Your task to perform on an android device: check data usage Image 0: 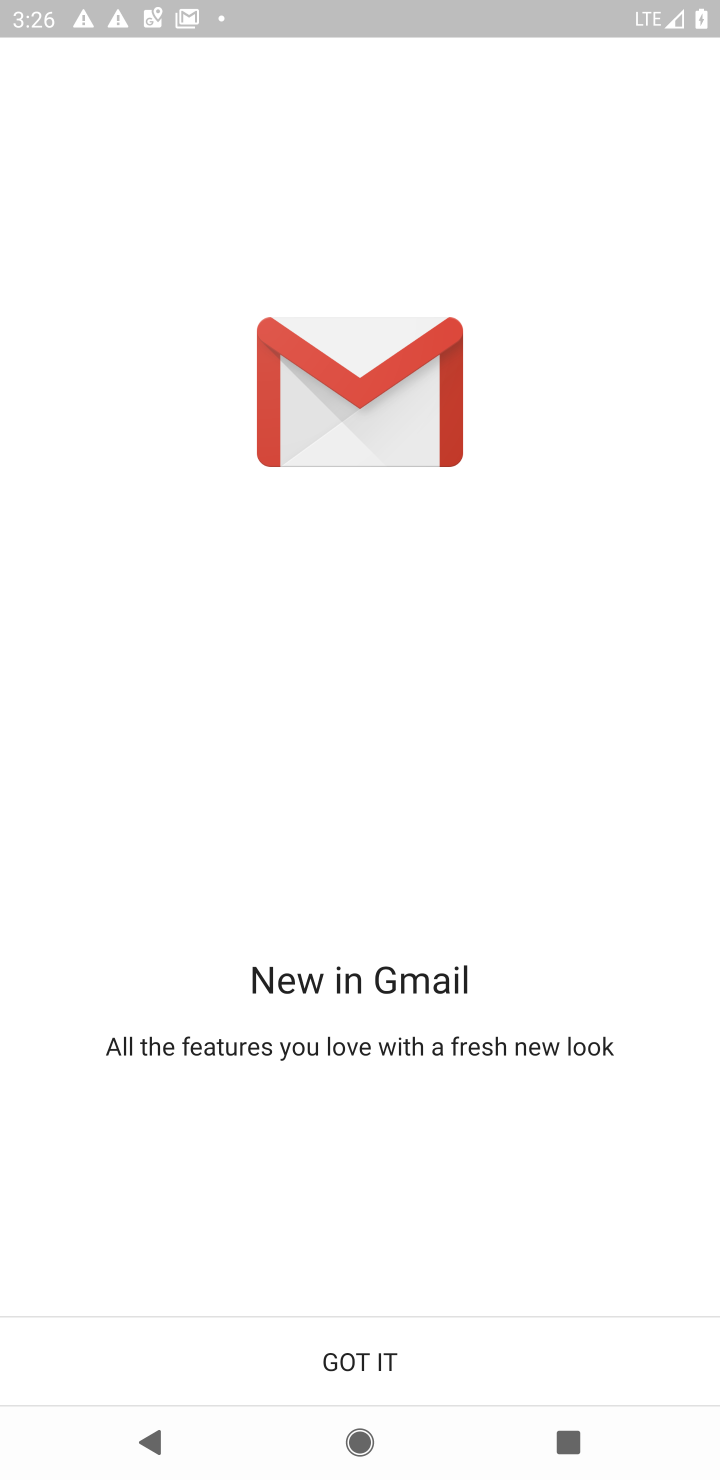
Step 0: press home button
Your task to perform on an android device: check data usage Image 1: 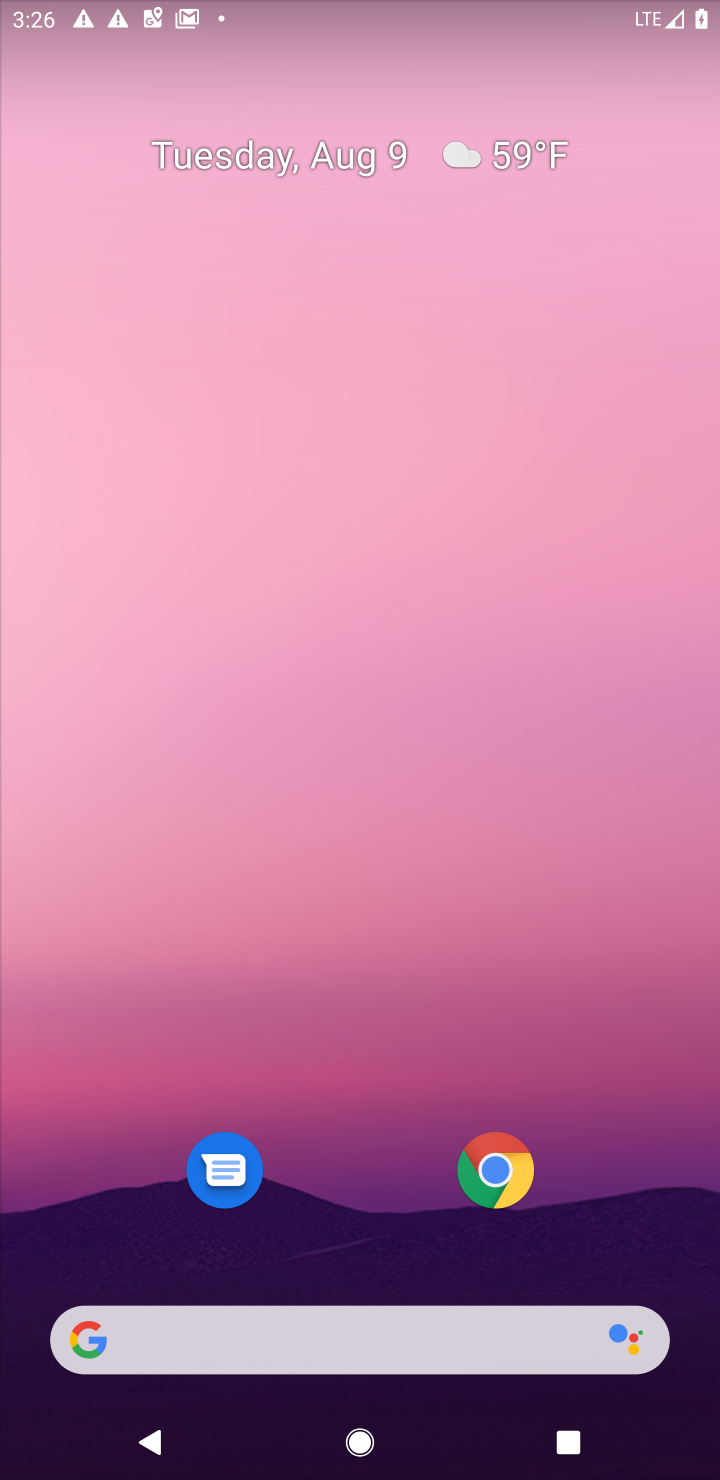
Step 1: drag from (407, 1136) to (391, 3)
Your task to perform on an android device: check data usage Image 2: 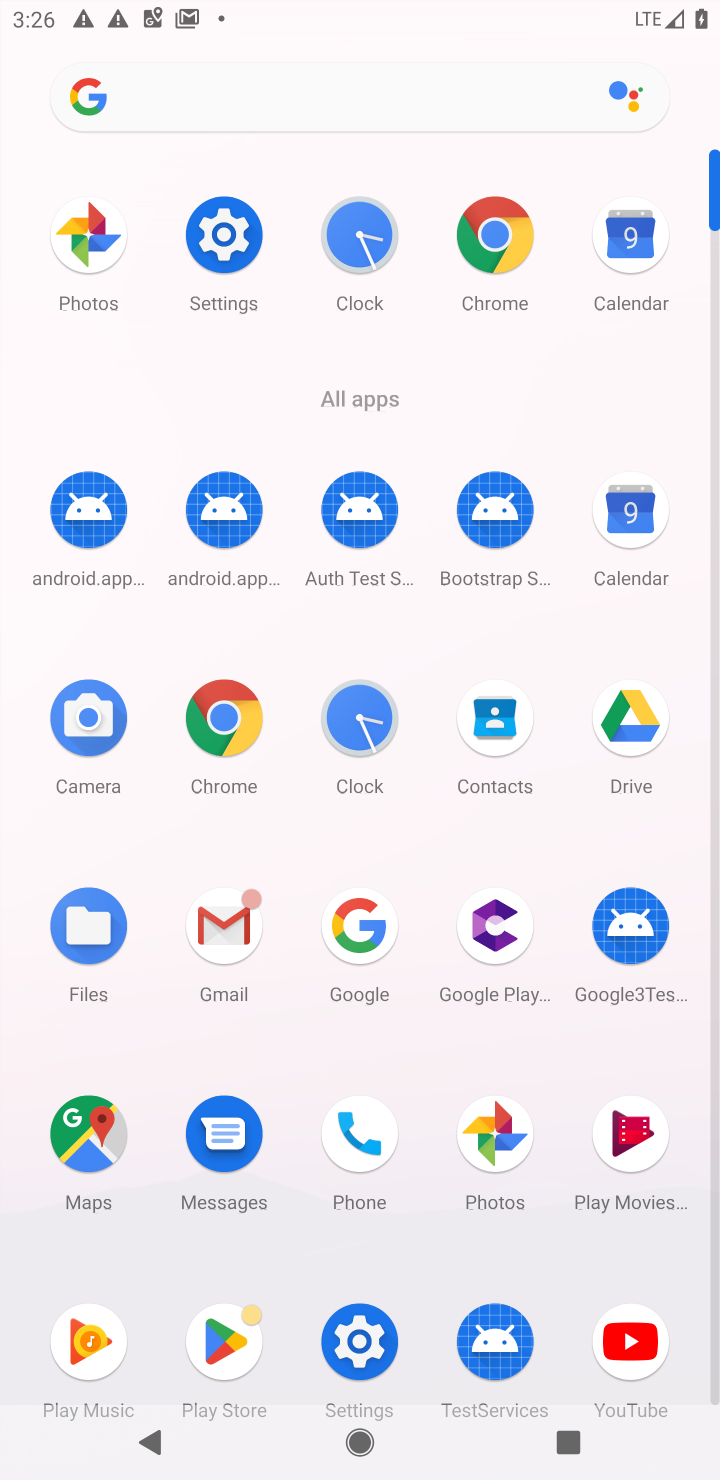
Step 2: click (218, 250)
Your task to perform on an android device: check data usage Image 3: 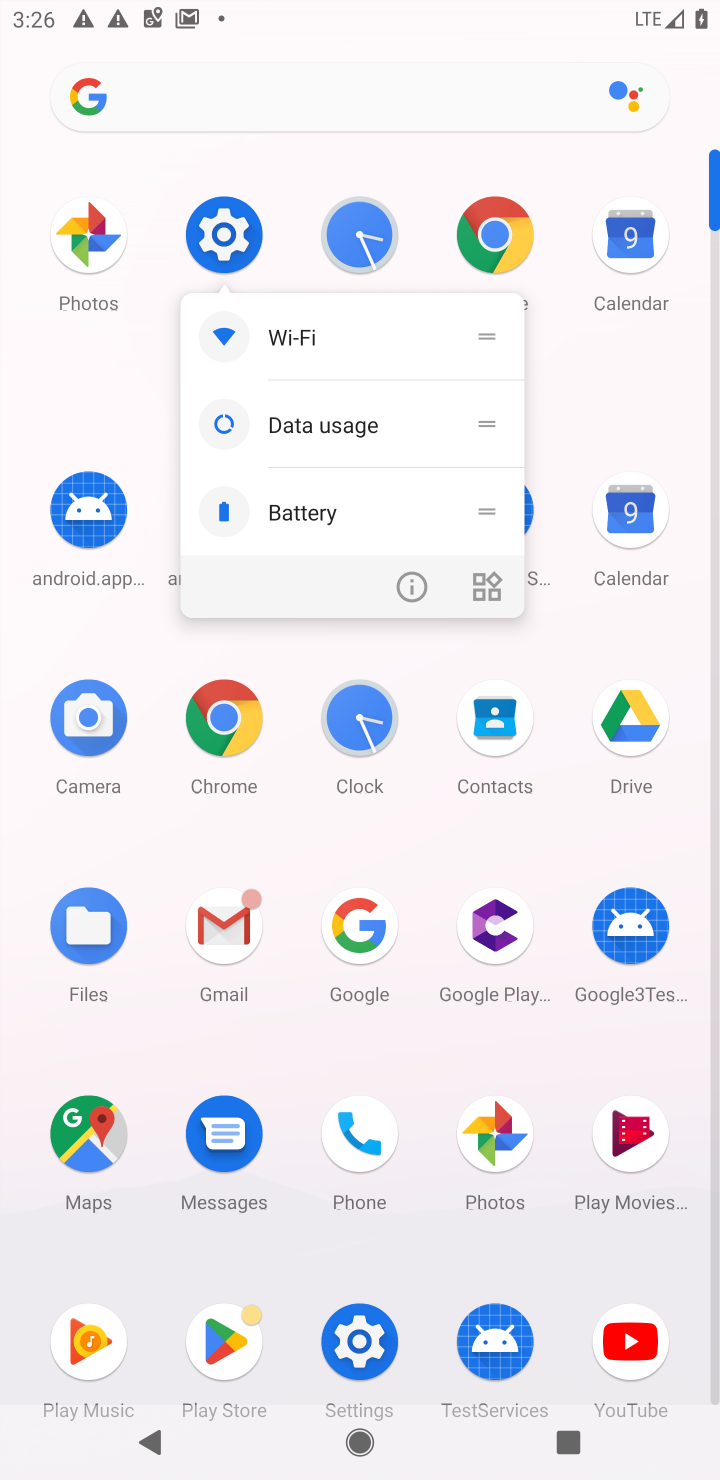
Step 3: click (218, 250)
Your task to perform on an android device: check data usage Image 4: 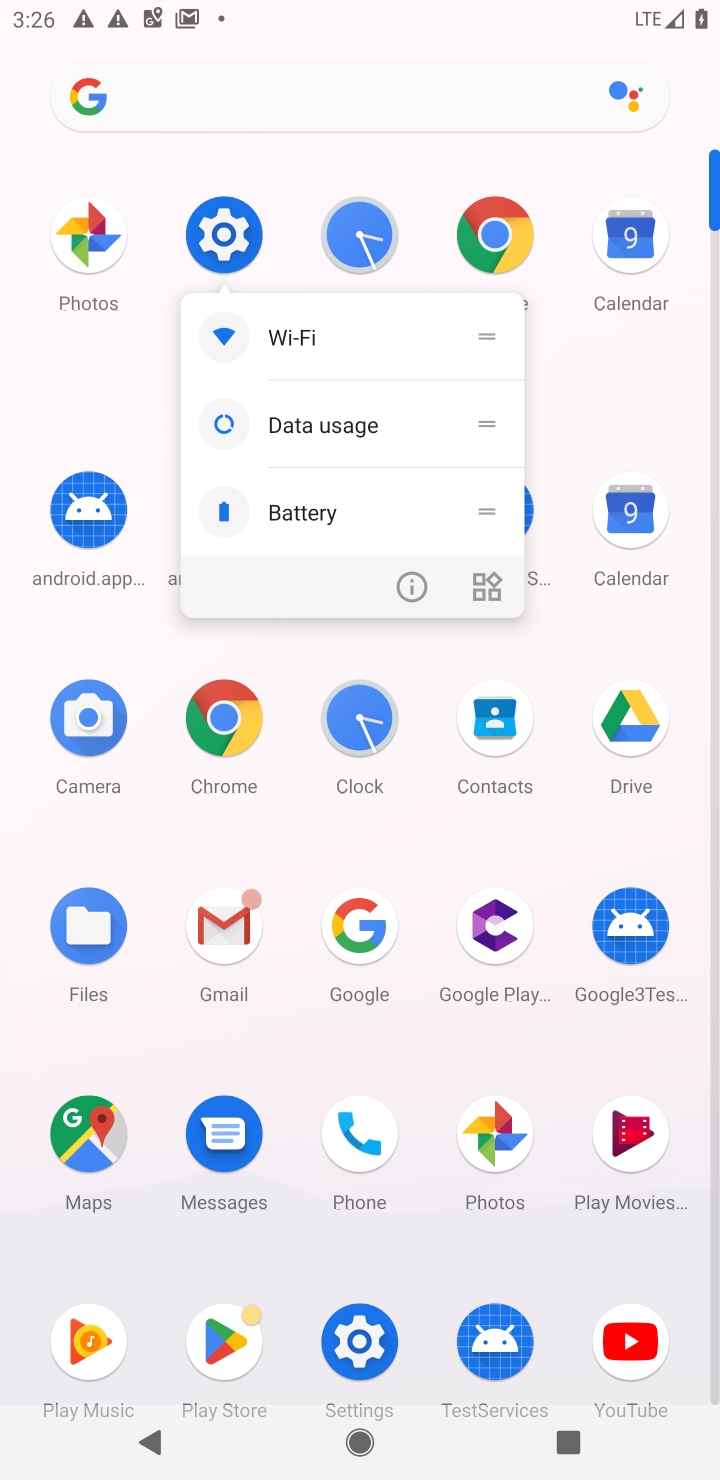
Step 4: click (218, 250)
Your task to perform on an android device: check data usage Image 5: 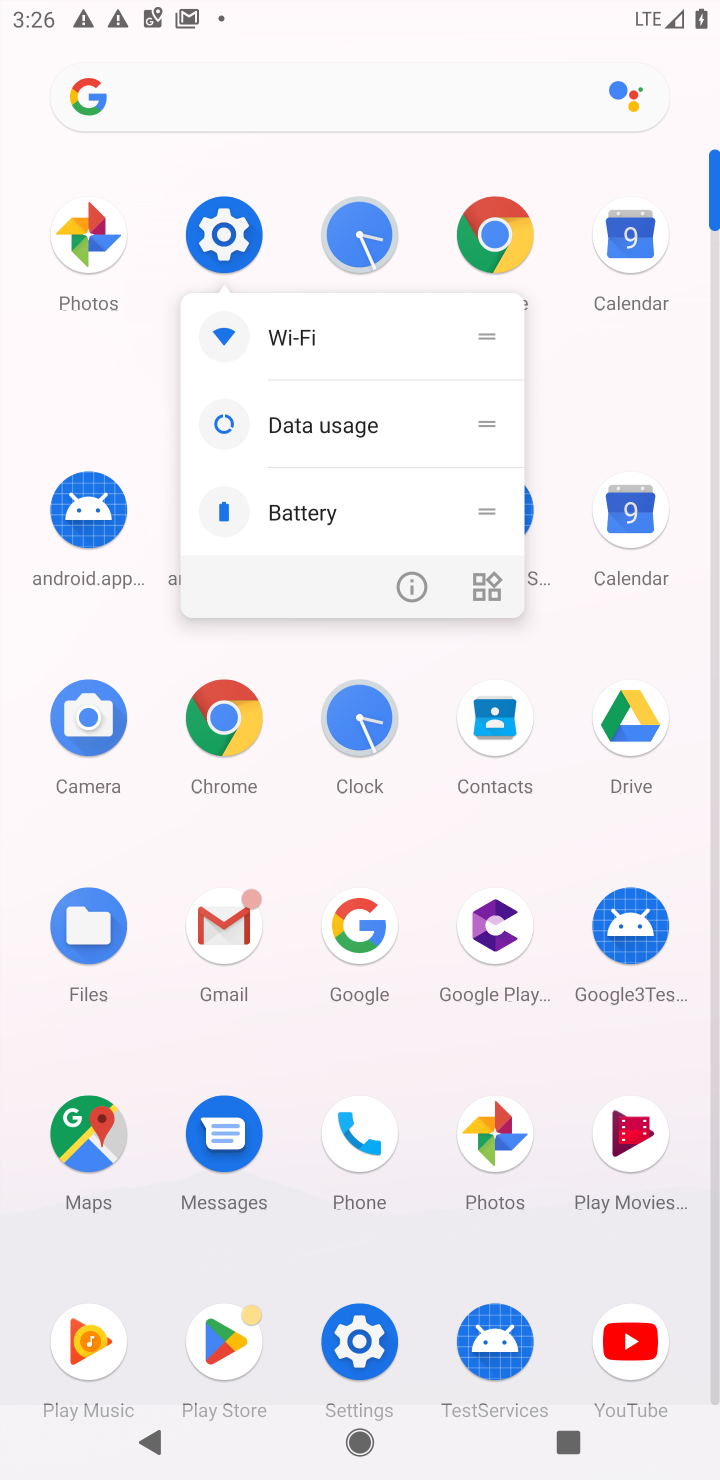
Step 5: click (218, 250)
Your task to perform on an android device: check data usage Image 6: 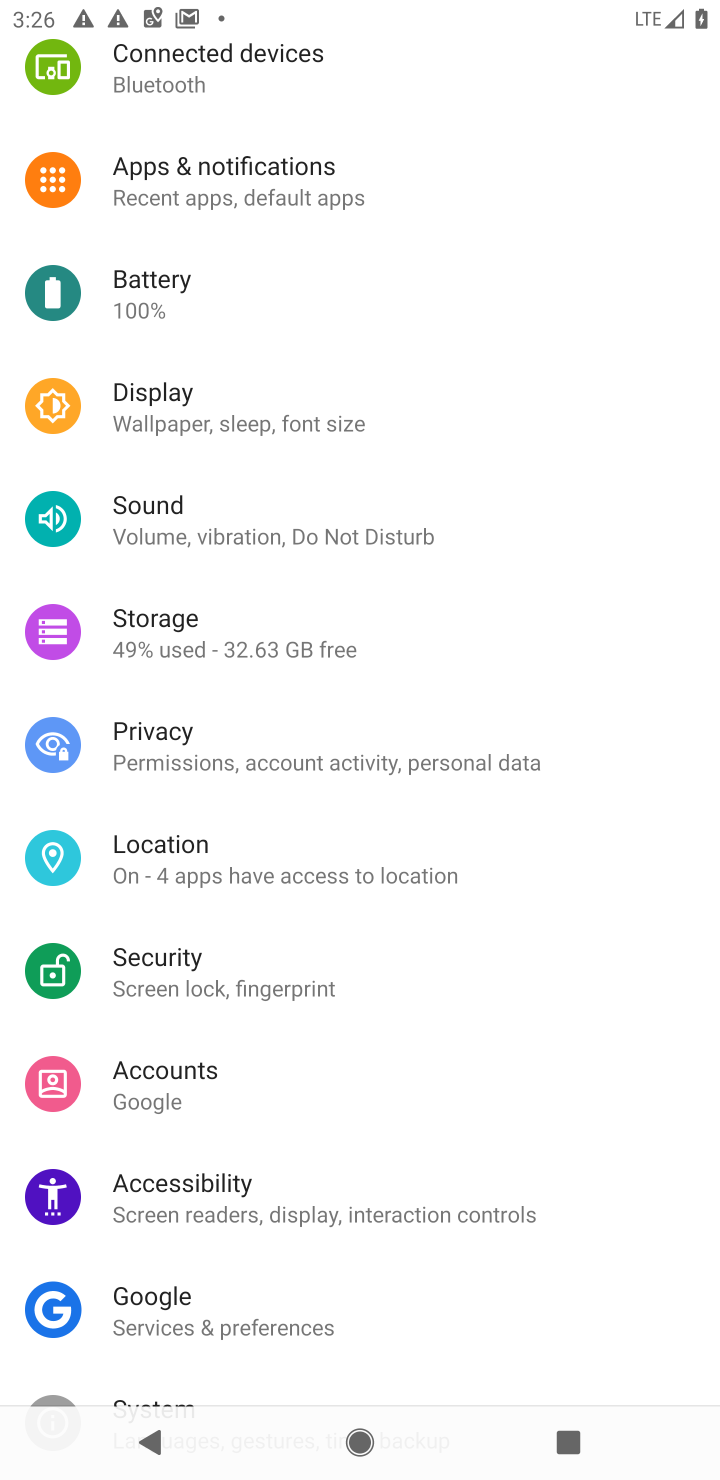
Step 6: drag from (504, 183) to (389, 1464)
Your task to perform on an android device: check data usage Image 7: 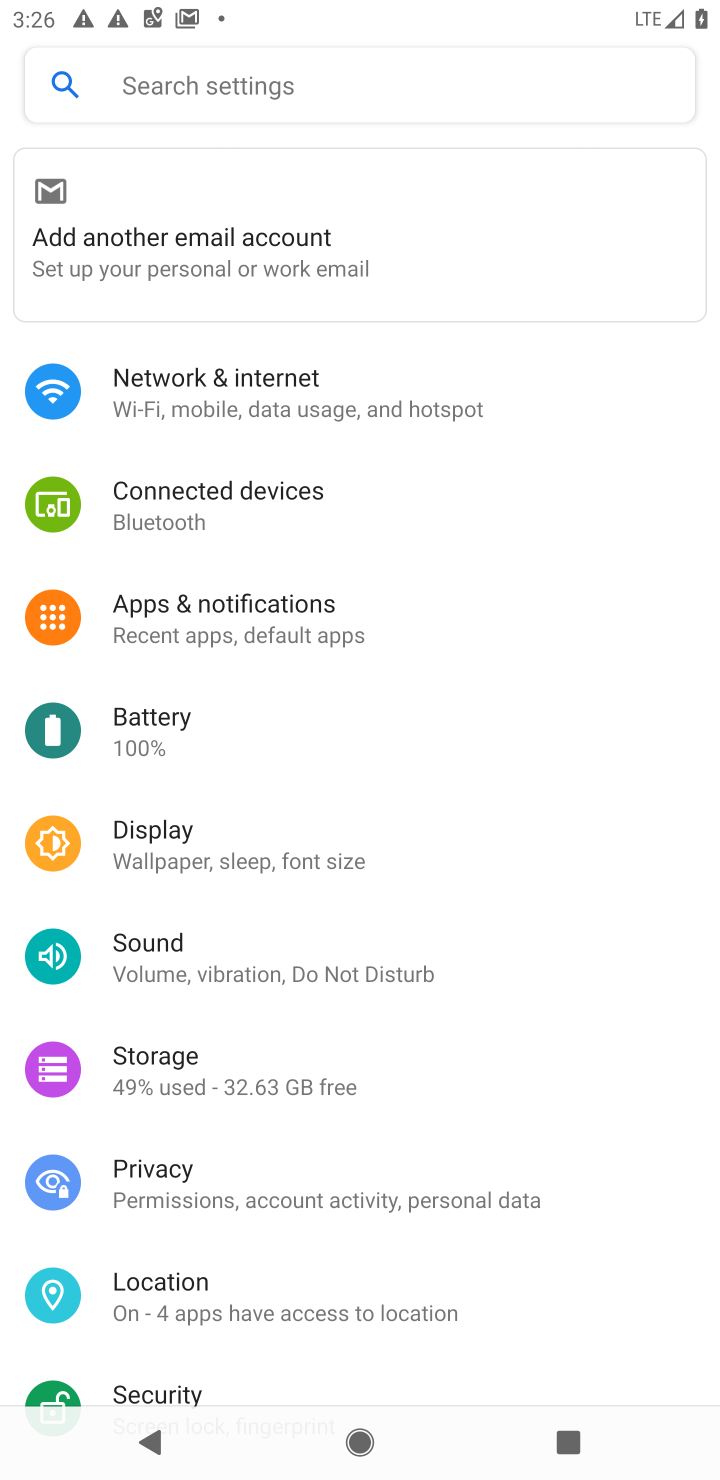
Step 7: click (203, 418)
Your task to perform on an android device: check data usage Image 8: 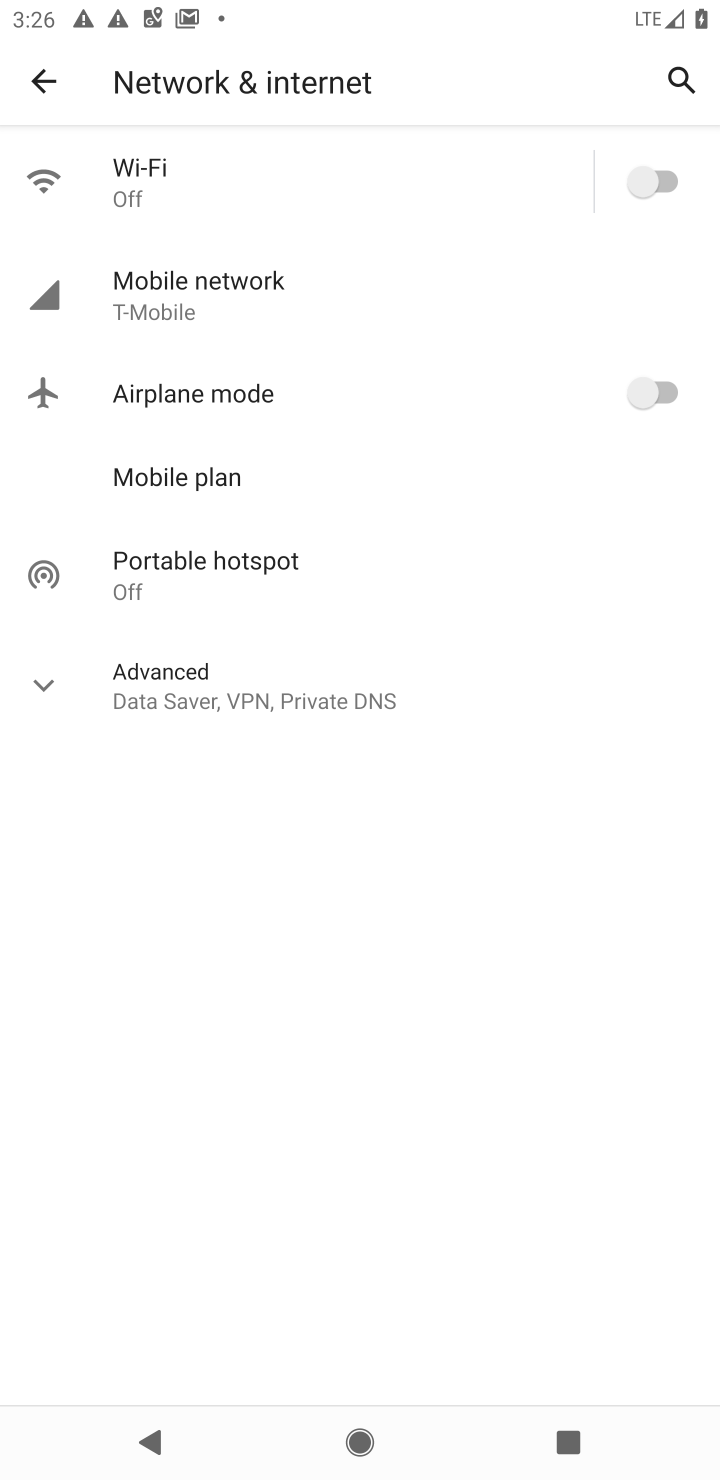
Step 8: click (165, 302)
Your task to perform on an android device: check data usage Image 9: 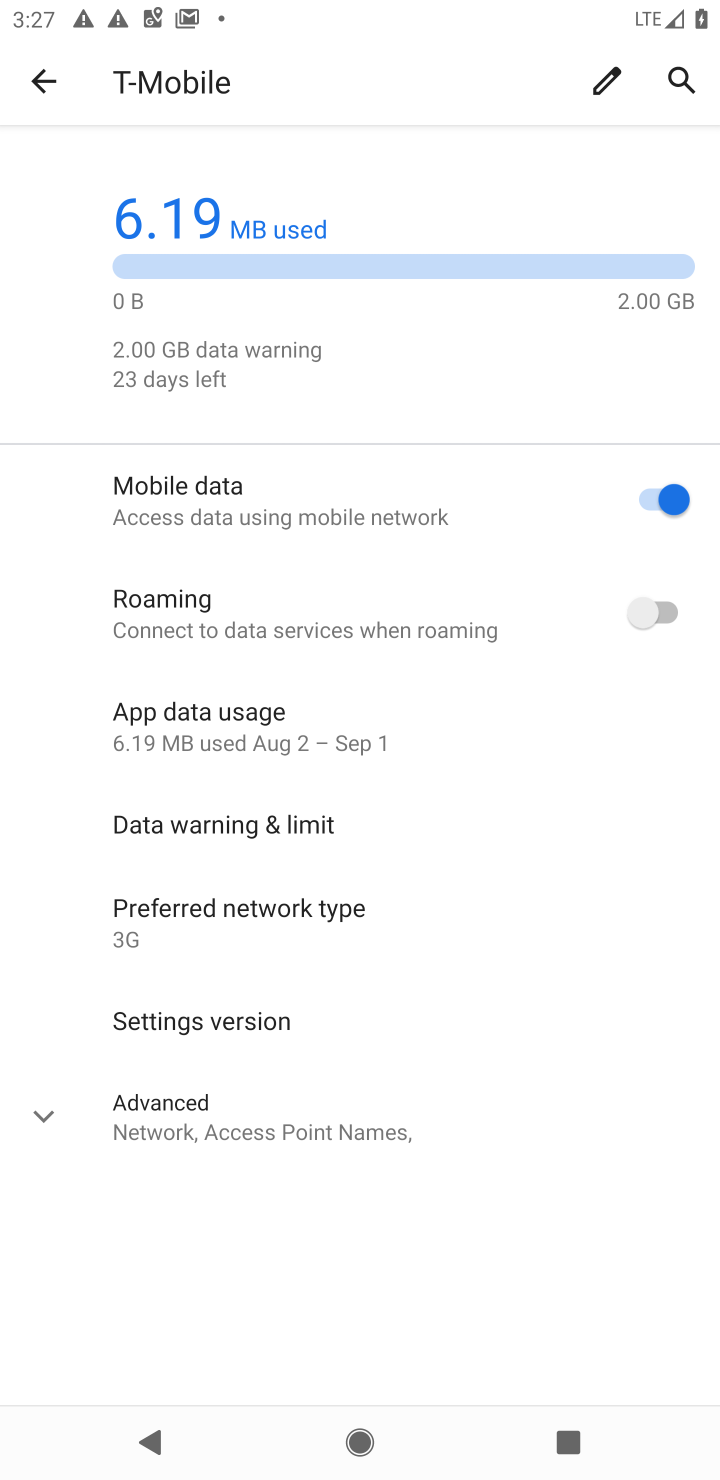
Step 9: click (197, 725)
Your task to perform on an android device: check data usage Image 10: 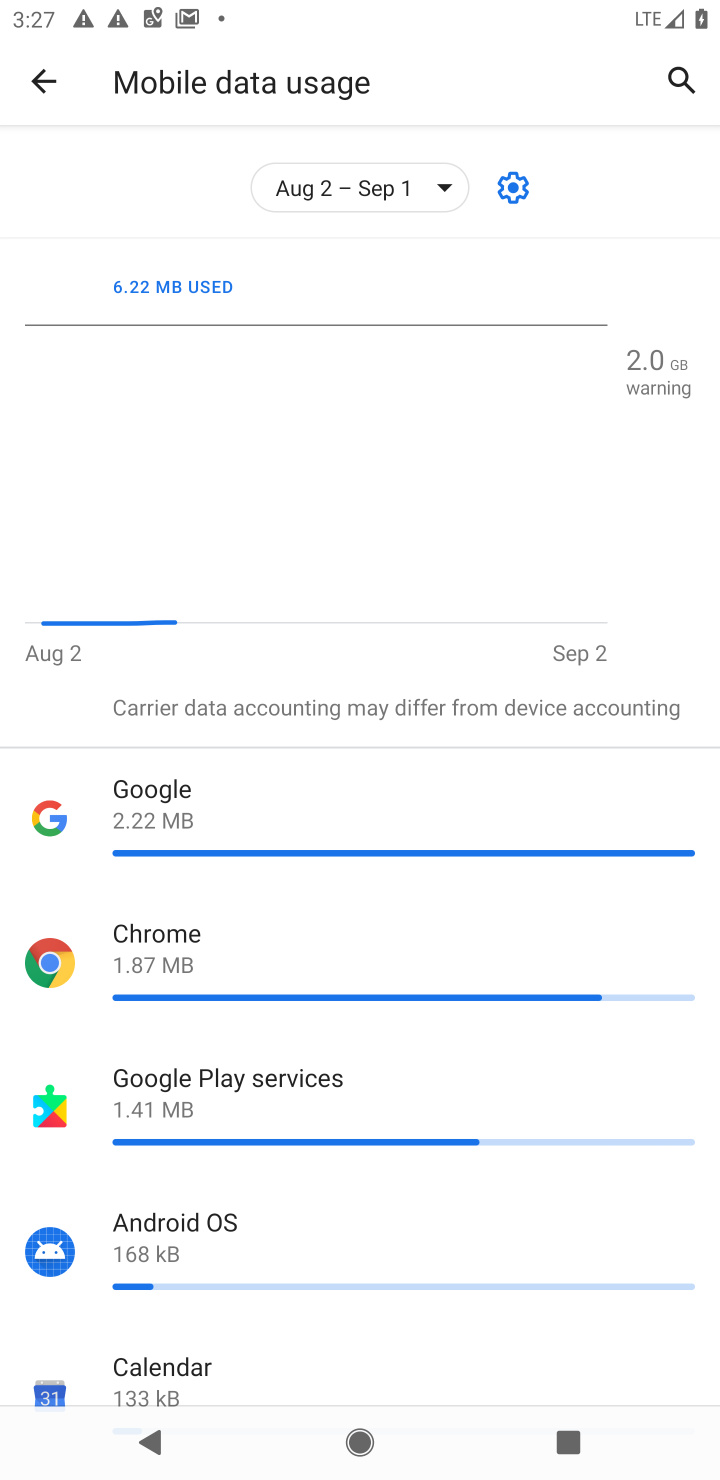
Step 10: task complete